Your task to perform on an android device: Open Youtube and go to the subscriptions tab Image 0: 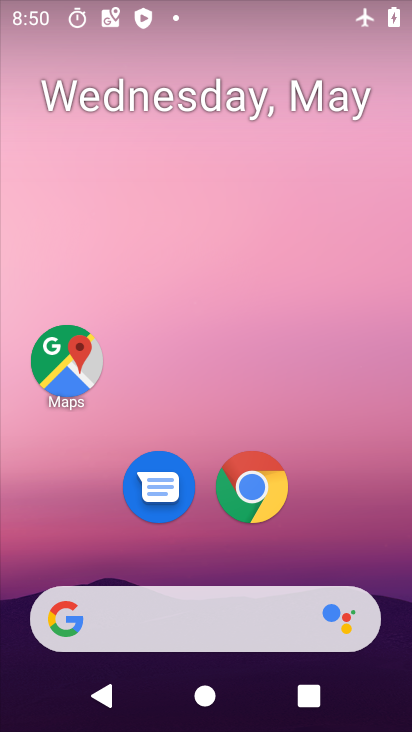
Step 0: drag from (207, 566) to (228, 146)
Your task to perform on an android device: Open Youtube and go to the subscriptions tab Image 1: 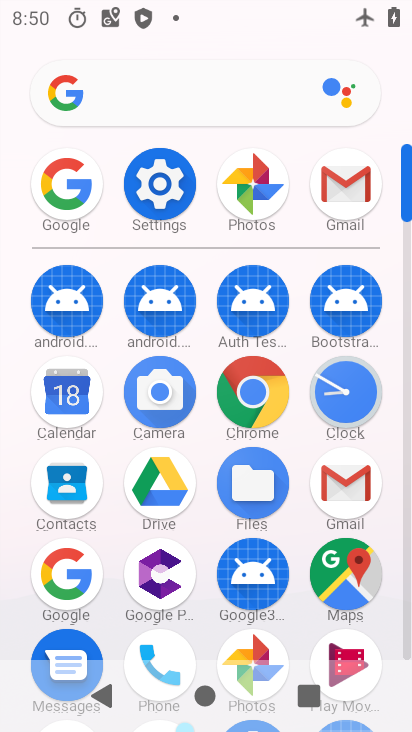
Step 1: drag from (275, 588) to (292, 191)
Your task to perform on an android device: Open Youtube and go to the subscriptions tab Image 2: 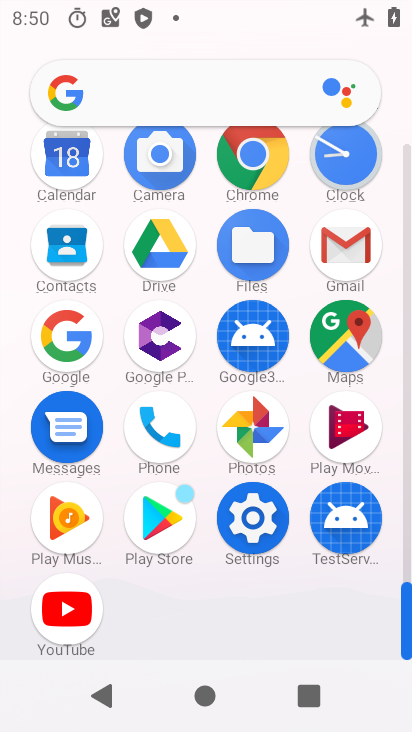
Step 2: click (52, 636)
Your task to perform on an android device: Open Youtube and go to the subscriptions tab Image 3: 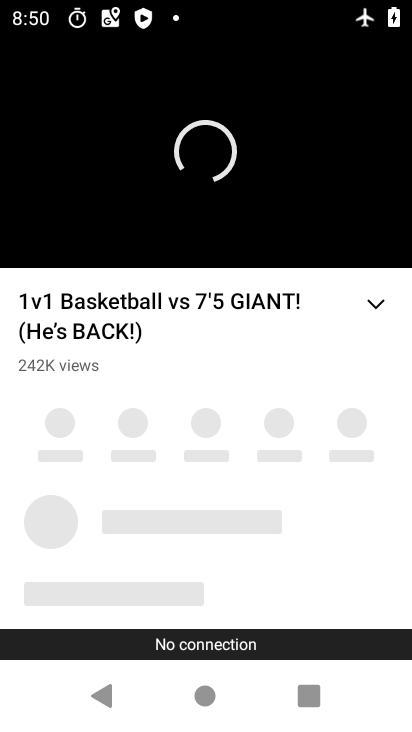
Step 3: press back button
Your task to perform on an android device: Open Youtube and go to the subscriptions tab Image 4: 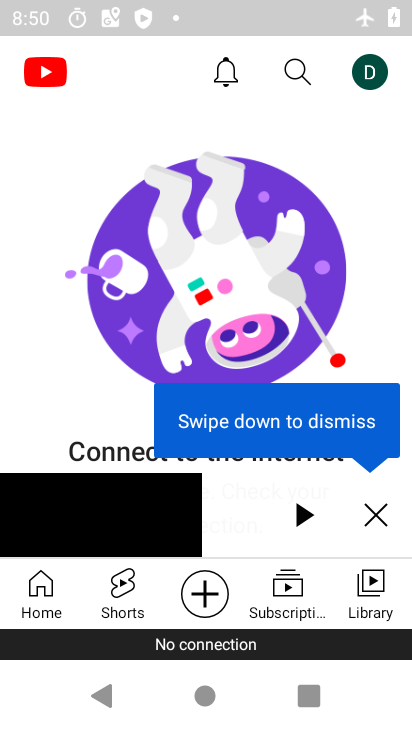
Step 4: click (273, 601)
Your task to perform on an android device: Open Youtube and go to the subscriptions tab Image 5: 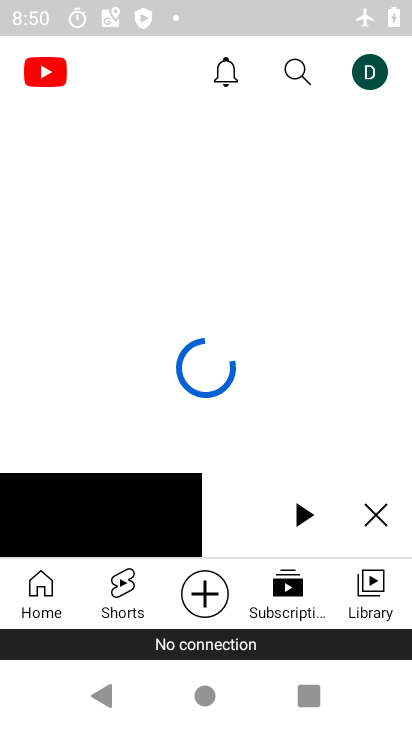
Step 5: task complete